Your task to perform on an android device: Check the news Image 0: 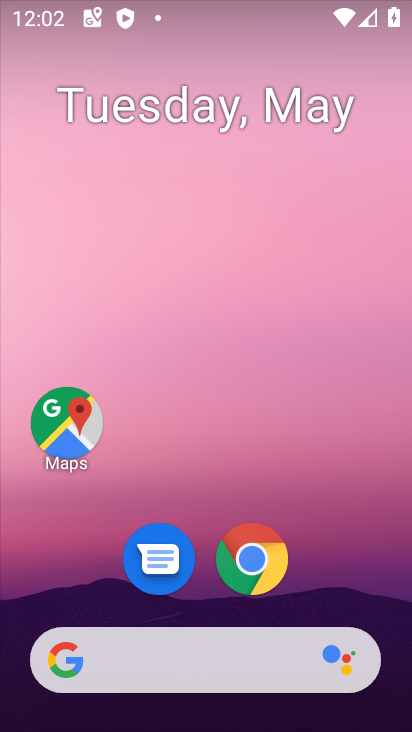
Step 0: click (239, 671)
Your task to perform on an android device: Check the news Image 1: 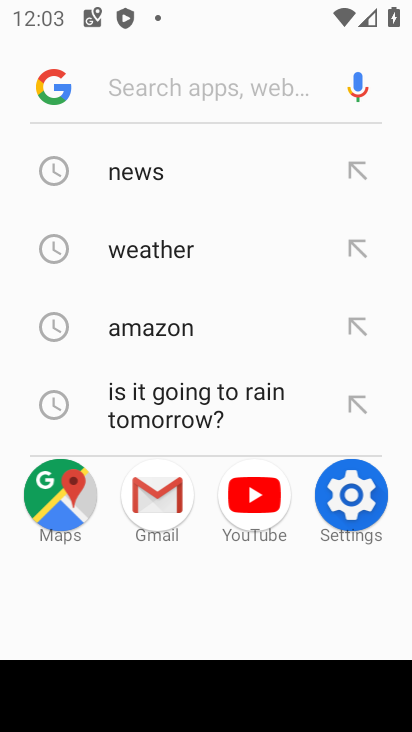
Step 1: click (171, 159)
Your task to perform on an android device: Check the news Image 2: 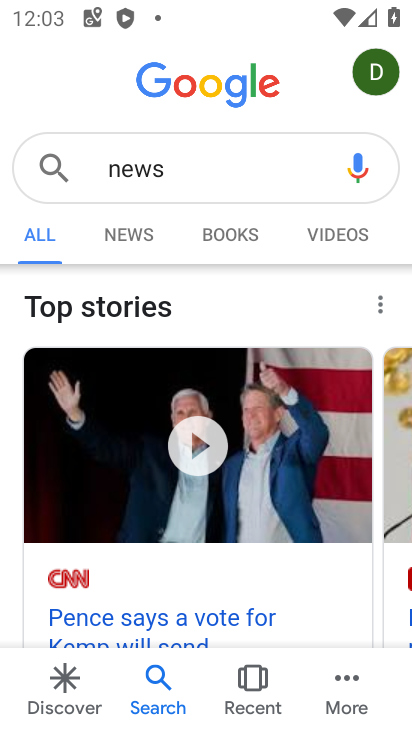
Step 2: task complete